Your task to perform on an android device: Open Chrome and go to the settings page Image 0: 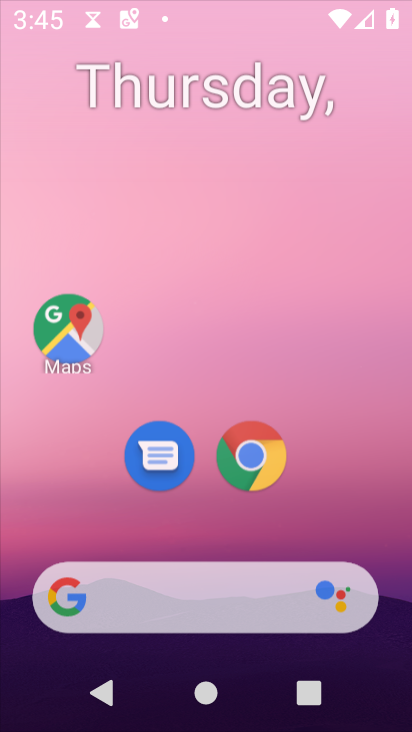
Step 0: drag from (273, 332) to (297, 22)
Your task to perform on an android device: Open Chrome and go to the settings page Image 1: 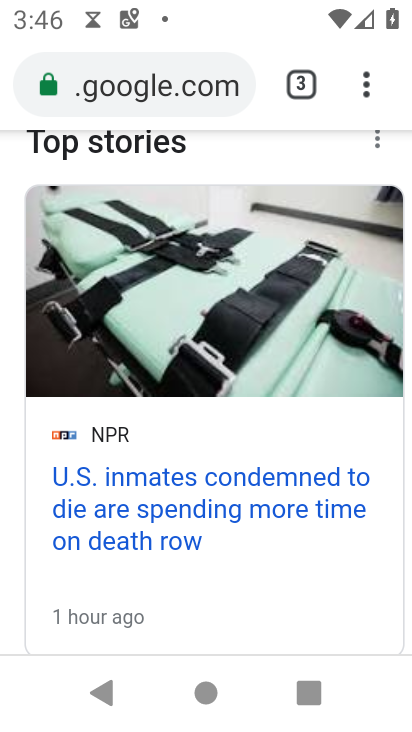
Step 1: press home button
Your task to perform on an android device: Open Chrome and go to the settings page Image 2: 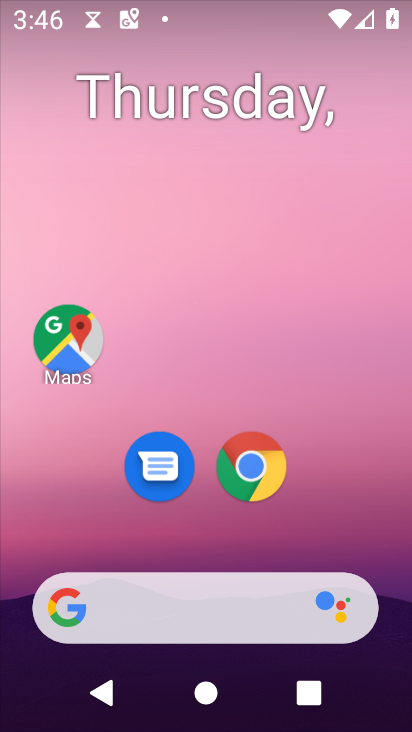
Step 2: drag from (313, 545) to (368, 0)
Your task to perform on an android device: Open Chrome and go to the settings page Image 3: 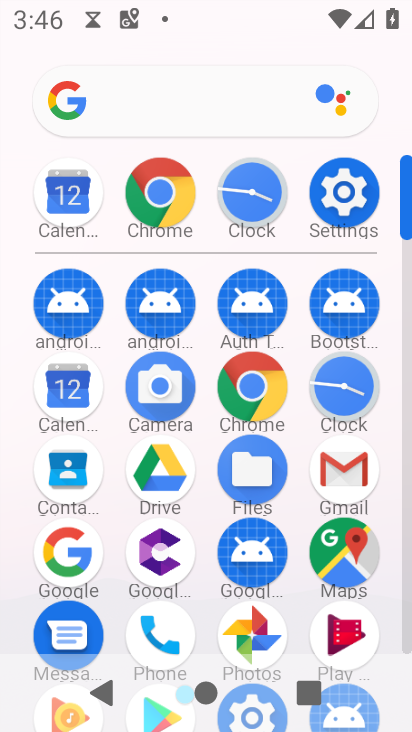
Step 3: click (252, 376)
Your task to perform on an android device: Open Chrome and go to the settings page Image 4: 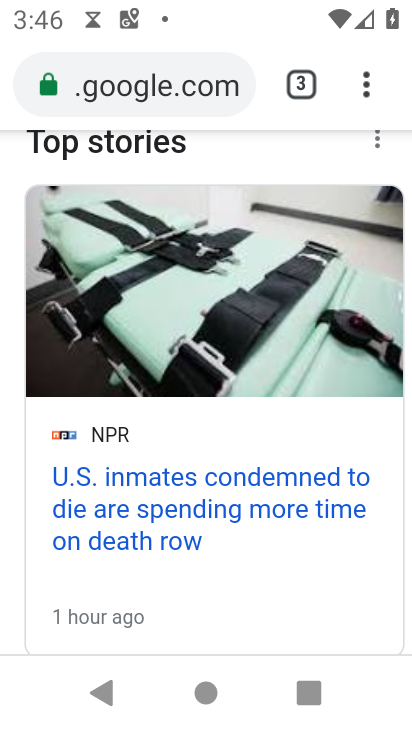
Step 4: task complete